Your task to perform on an android device: search for starred emails in the gmail app Image 0: 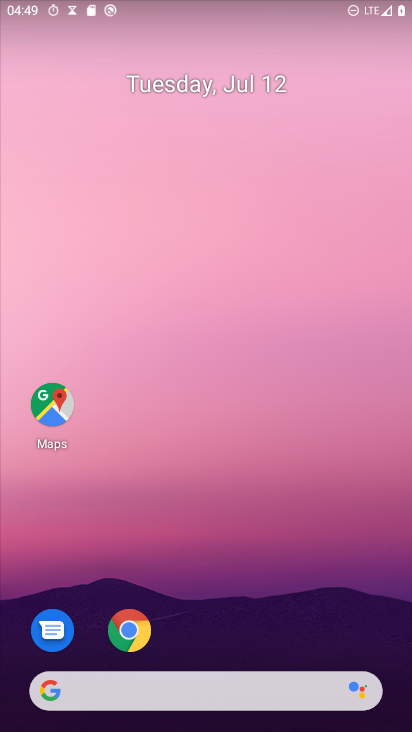
Step 0: drag from (337, 637) to (365, 88)
Your task to perform on an android device: search for starred emails in the gmail app Image 1: 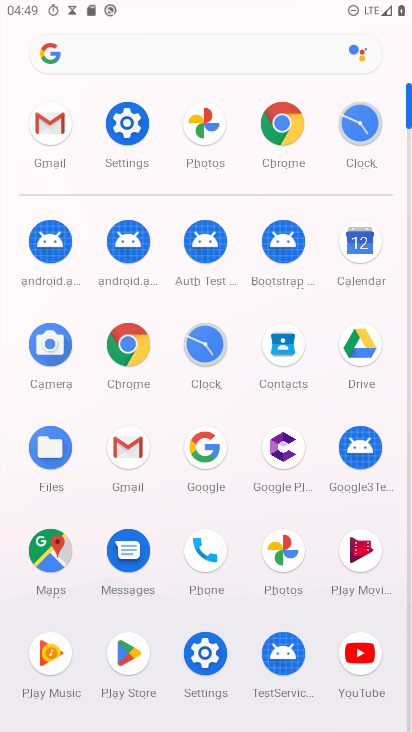
Step 1: click (133, 455)
Your task to perform on an android device: search for starred emails in the gmail app Image 2: 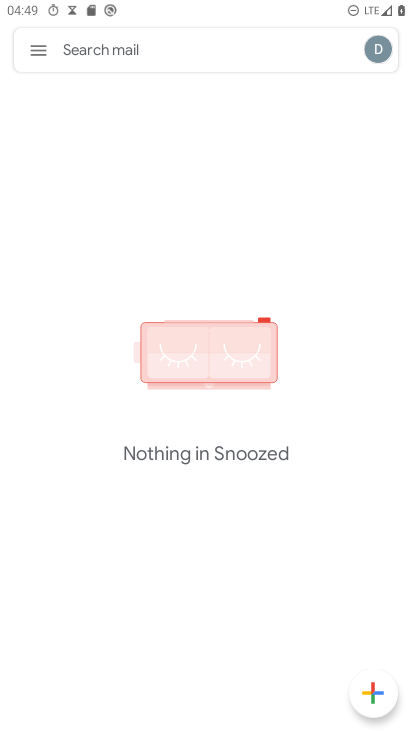
Step 2: click (45, 49)
Your task to perform on an android device: search for starred emails in the gmail app Image 3: 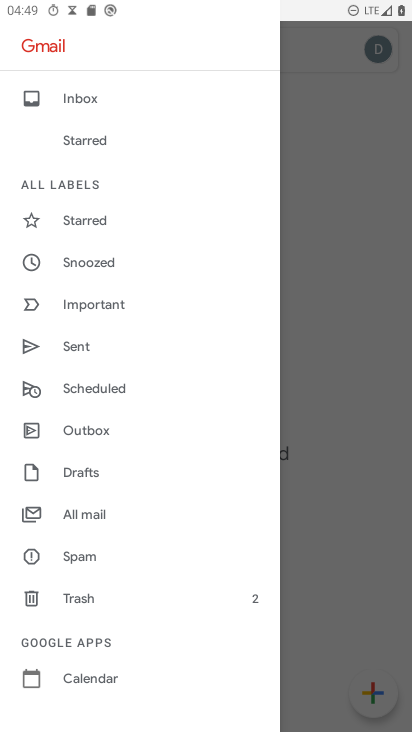
Step 3: click (102, 221)
Your task to perform on an android device: search for starred emails in the gmail app Image 4: 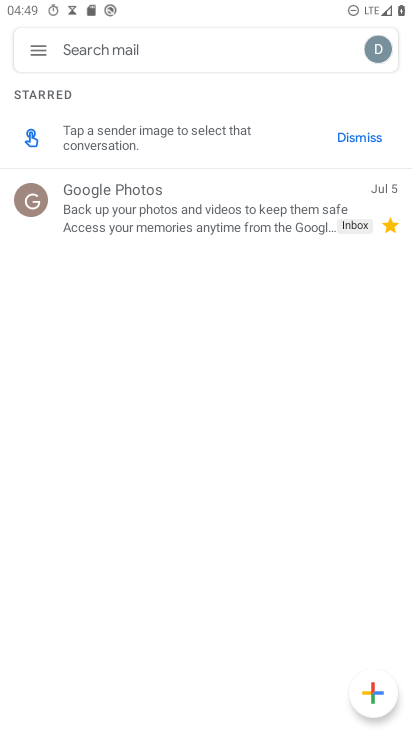
Step 4: task complete